Your task to perform on an android device: toggle show notifications on the lock screen Image 0: 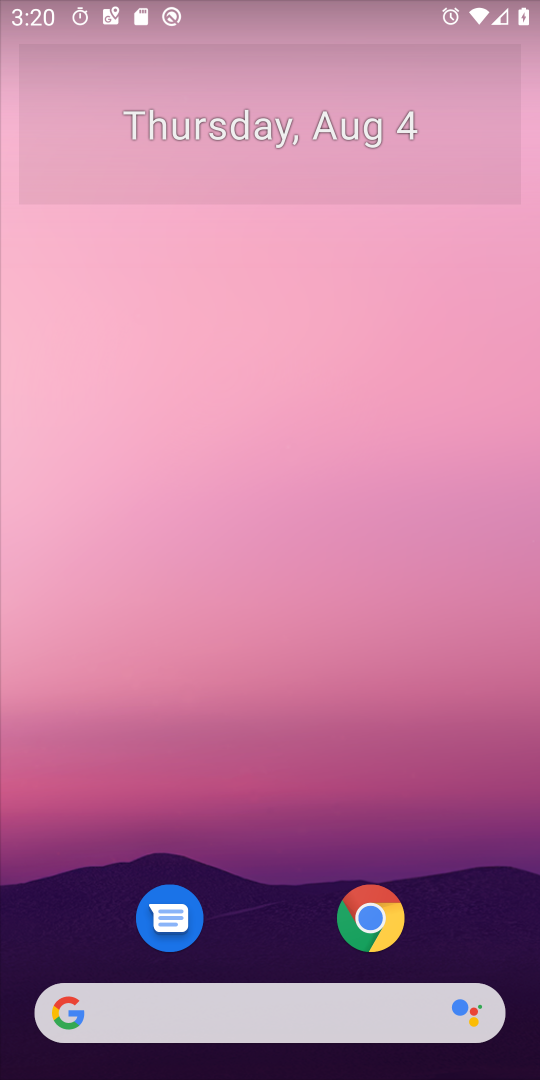
Step 0: drag from (281, 845) to (213, 184)
Your task to perform on an android device: toggle show notifications on the lock screen Image 1: 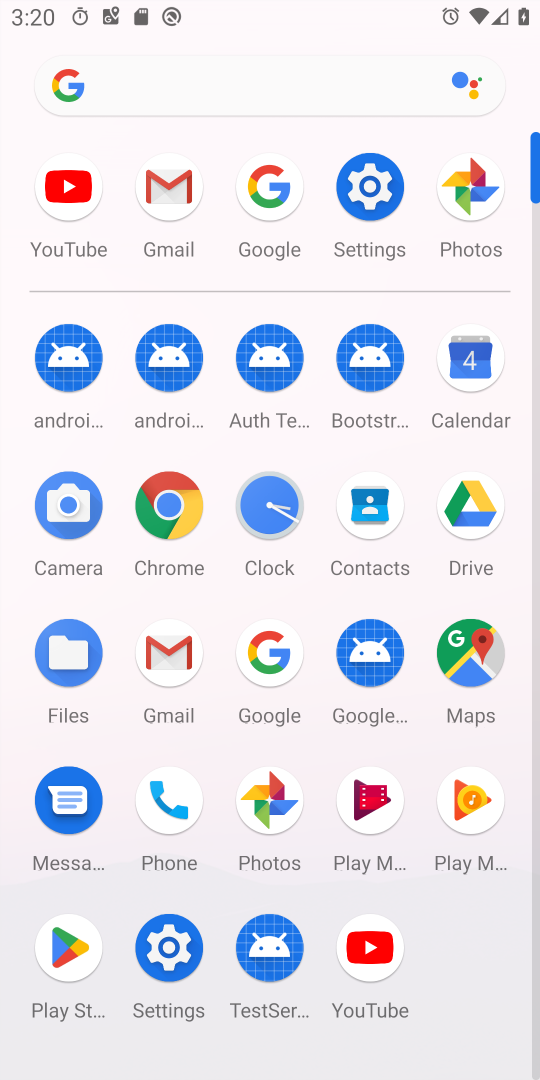
Step 1: click (356, 205)
Your task to perform on an android device: toggle show notifications on the lock screen Image 2: 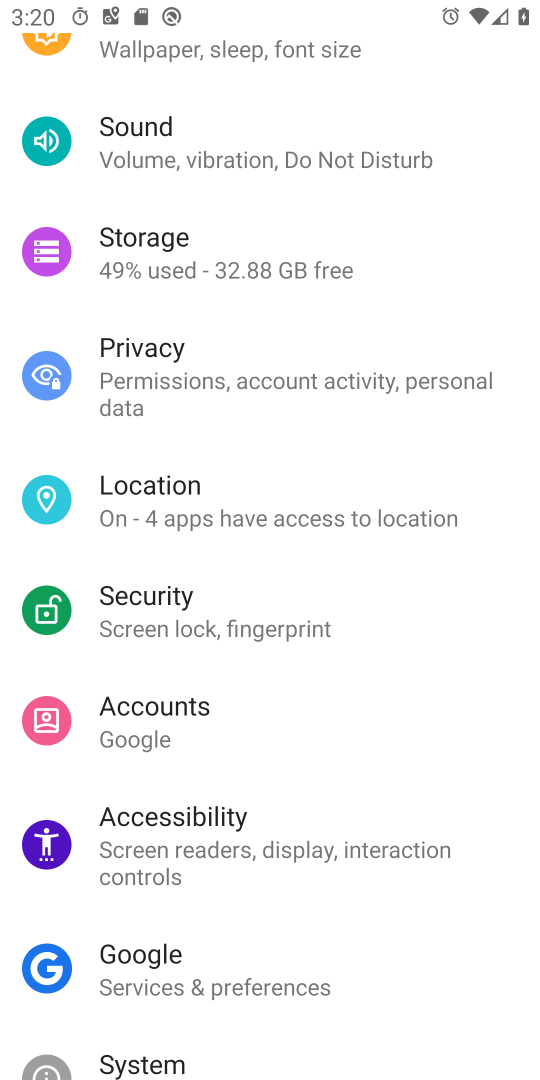
Step 2: drag from (279, 239) to (350, 681)
Your task to perform on an android device: toggle show notifications on the lock screen Image 3: 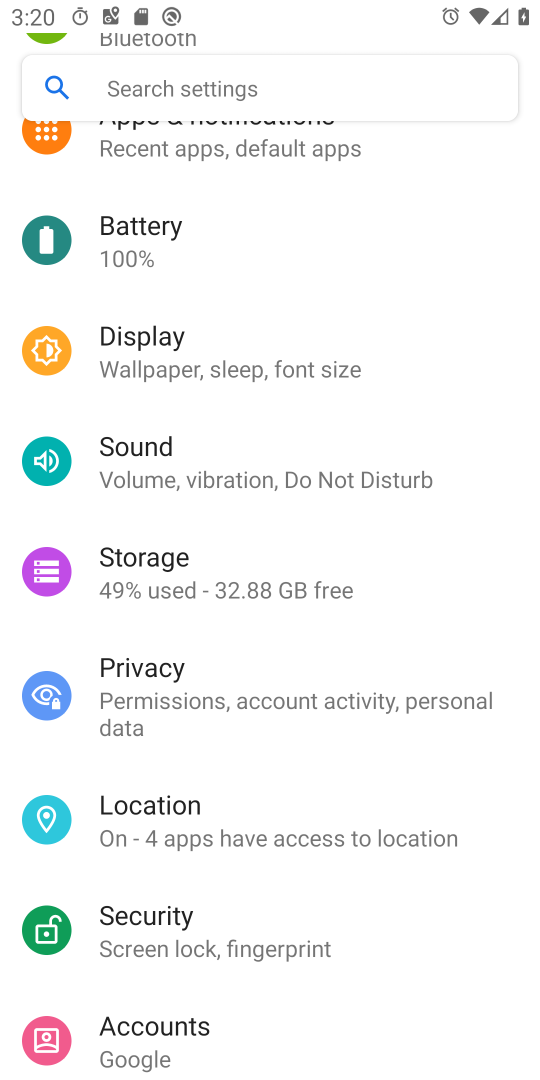
Step 3: drag from (257, 311) to (286, 775)
Your task to perform on an android device: toggle show notifications on the lock screen Image 4: 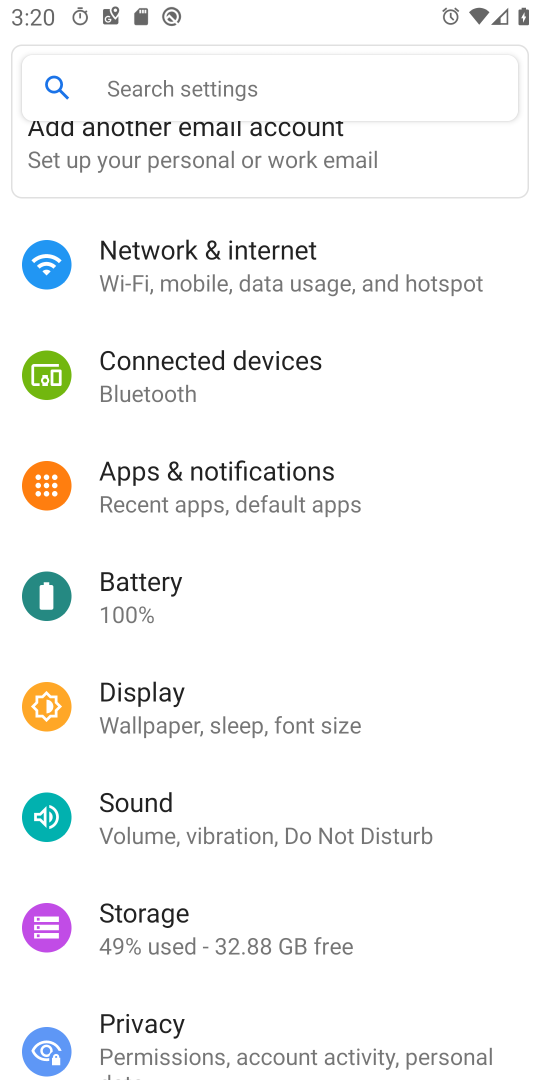
Step 4: click (234, 480)
Your task to perform on an android device: toggle show notifications on the lock screen Image 5: 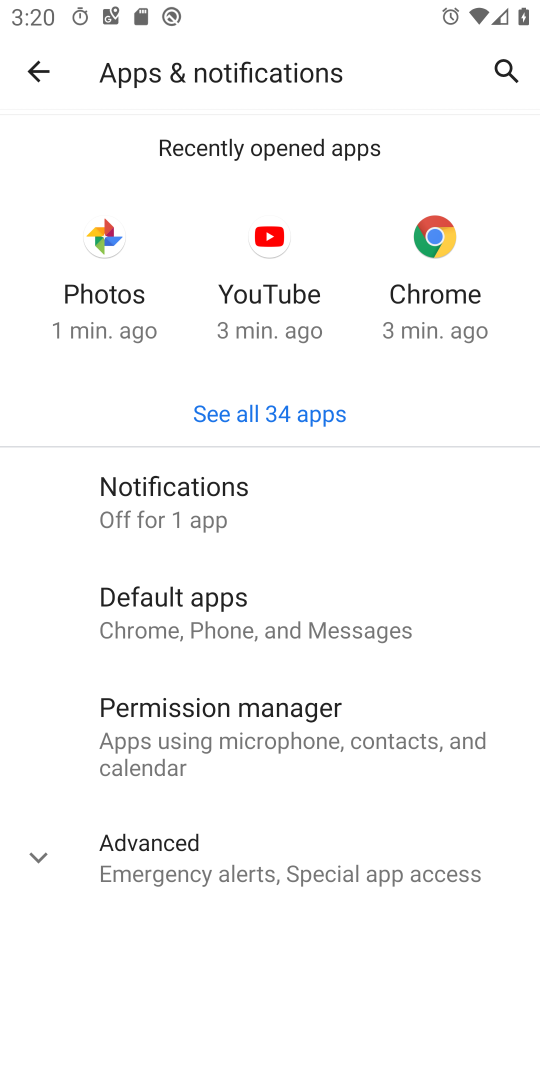
Step 5: click (234, 480)
Your task to perform on an android device: toggle show notifications on the lock screen Image 6: 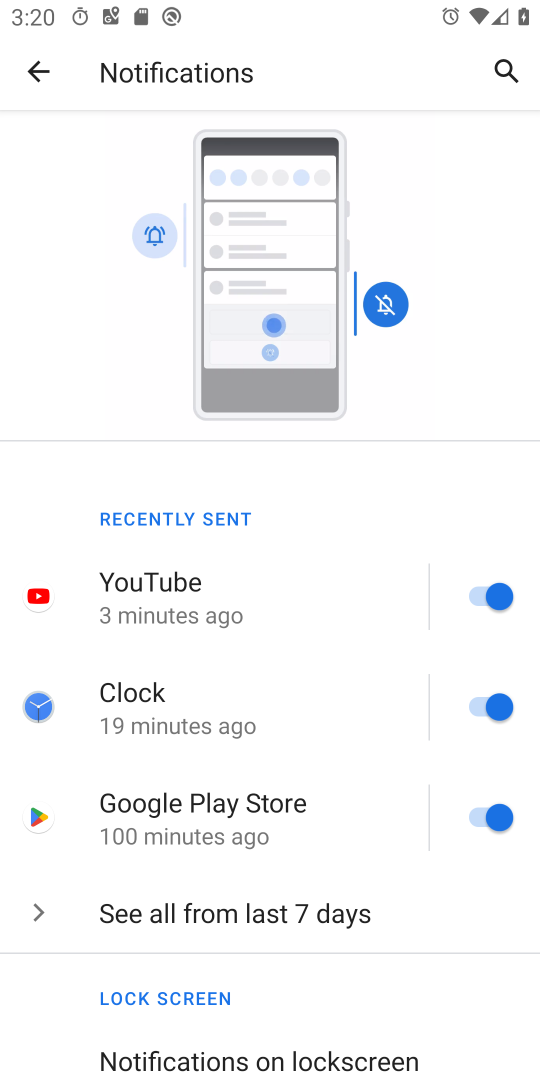
Step 6: click (291, 1047)
Your task to perform on an android device: toggle show notifications on the lock screen Image 7: 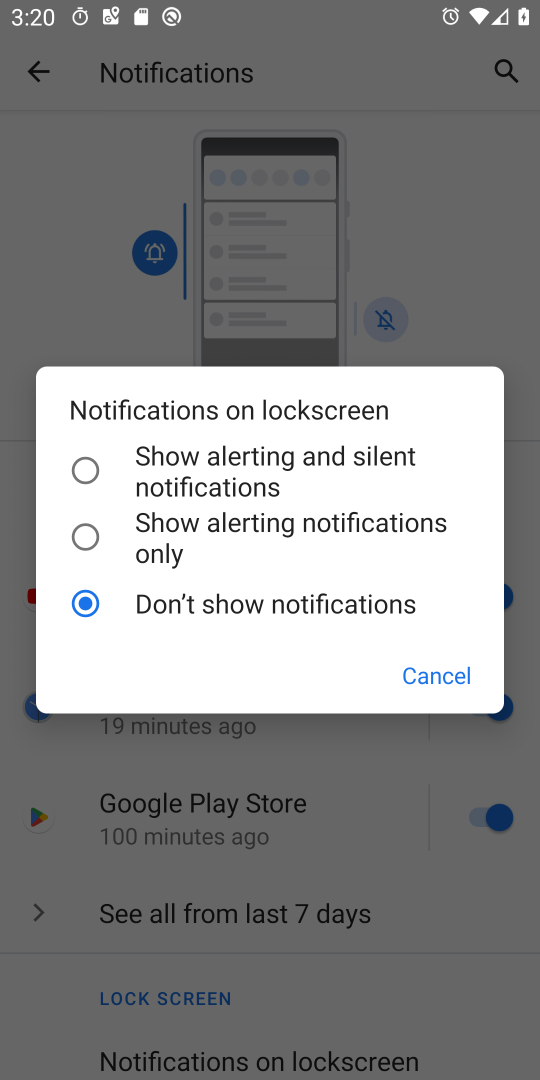
Step 7: click (261, 468)
Your task to perform on an android device: toggle show notifications on the lock screen Image 8: 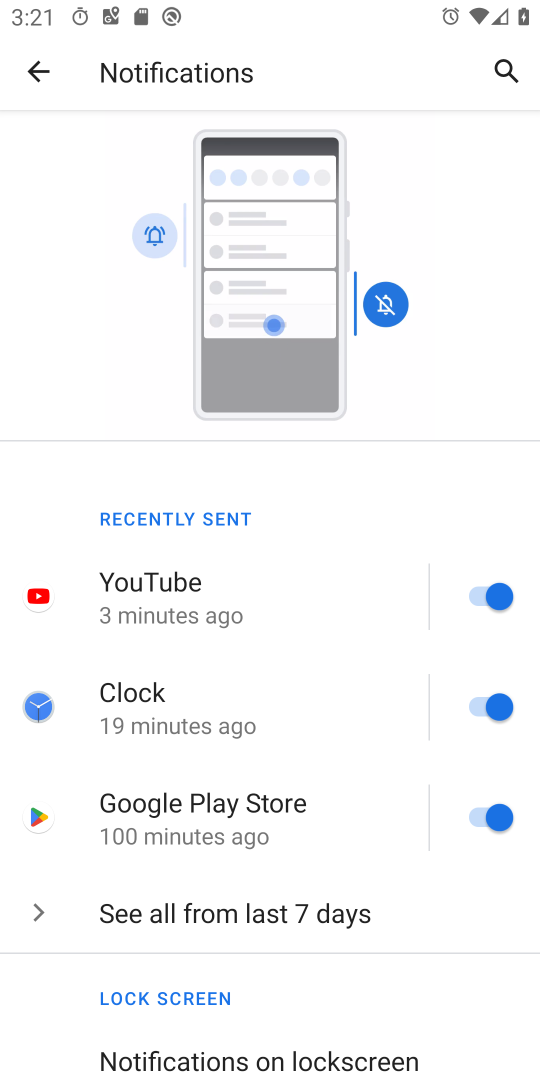
Step 8: task complete